Your task to perform on an android device: When is my next meeting? Image 0: 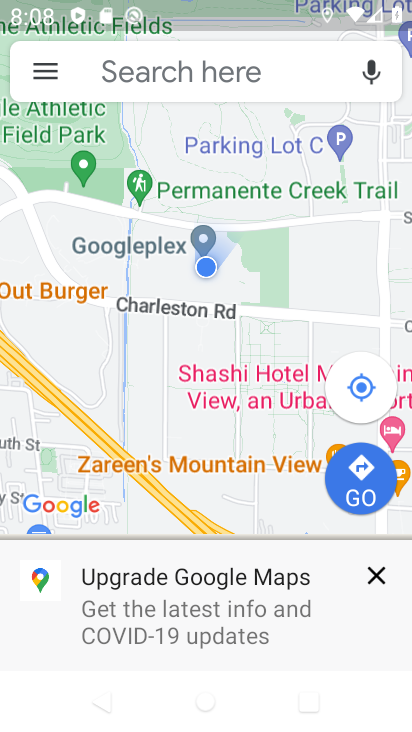
Step 0: press home button
Your task to perform on an android device: When is my next meeting? Image 1: 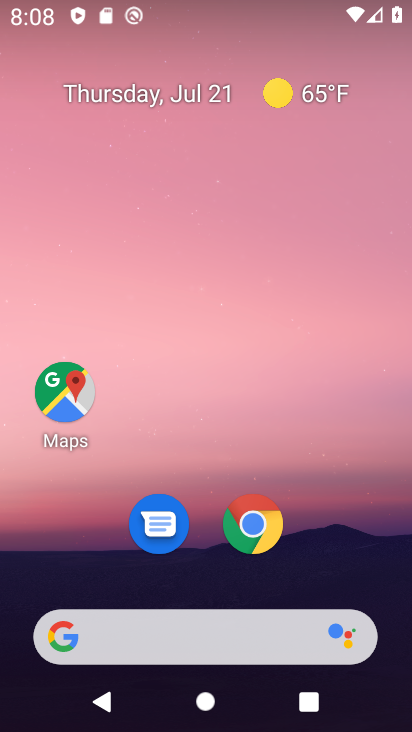
Step 1: drag from (175, 633) to (86, 39)
Your task to perform on an android device: When is my next meeting? Image 2: 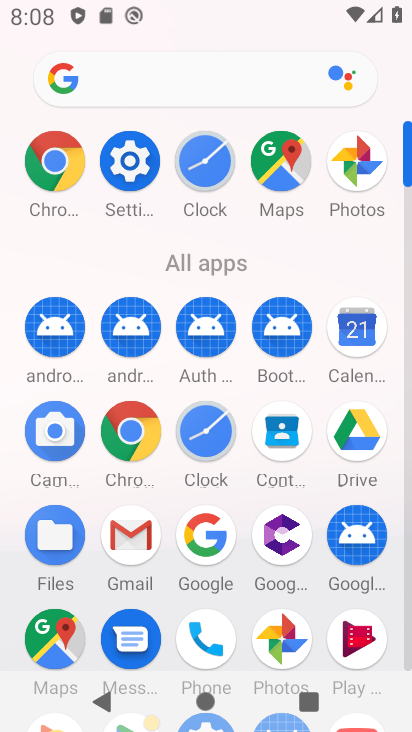
Step 2: click (365, 331)
Your task to perform on an android device: When is my next meeting? Image 3: 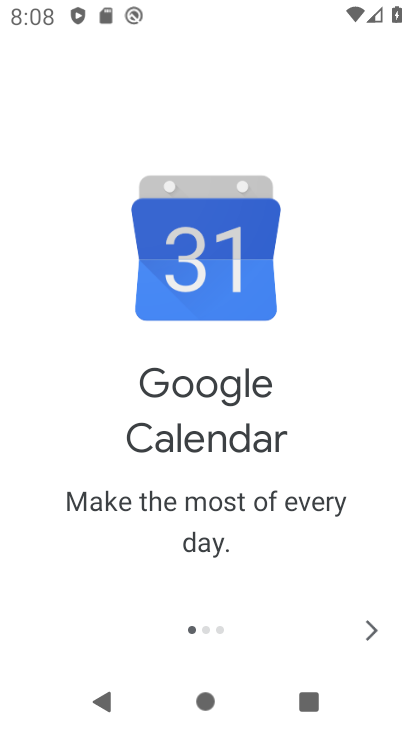
Step 3: click (371, 625)
Your task to perform on an android device: When is my next meeting? Image 4: 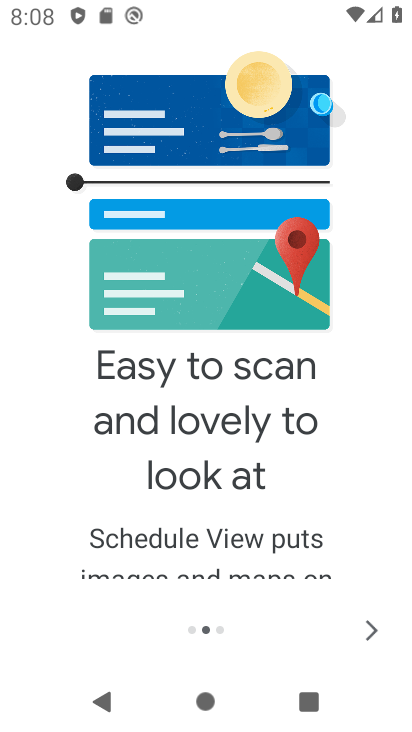
Step 4: click (371, 625)
Your task to perform on an android device: When is my next meeting? Image 5: 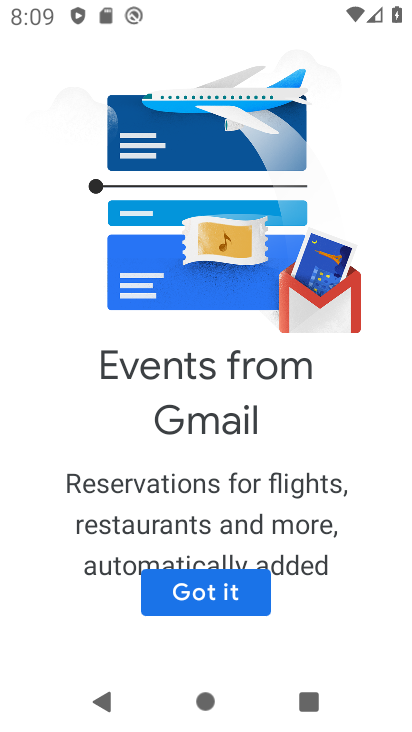
Step 5: click (251, 592)
Your task to perform on an android device: When is my next meeting? Image 6: 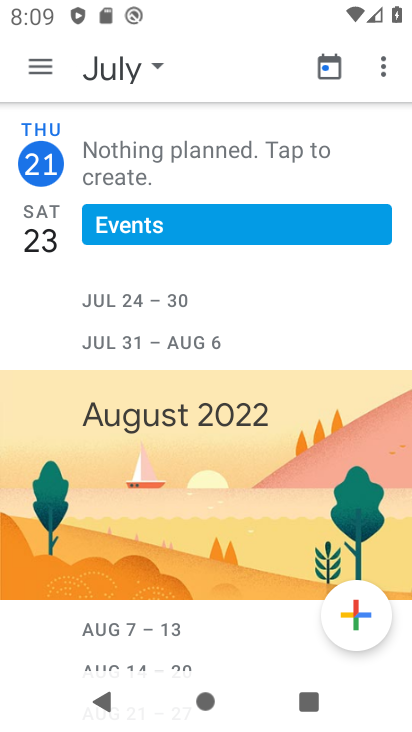
Step 6: task complete